Your task to perform on an android device: set default search engine in the chrome app Image 0: 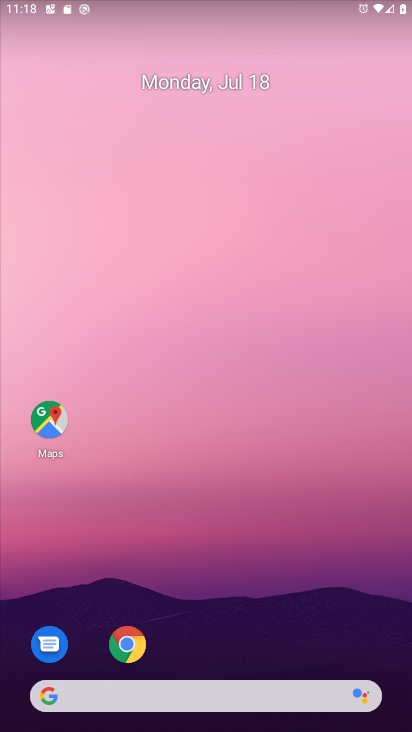
Step 0: click (118, 649)
Your task to perform on an android device: set default search engine in the chrome app Image 1: 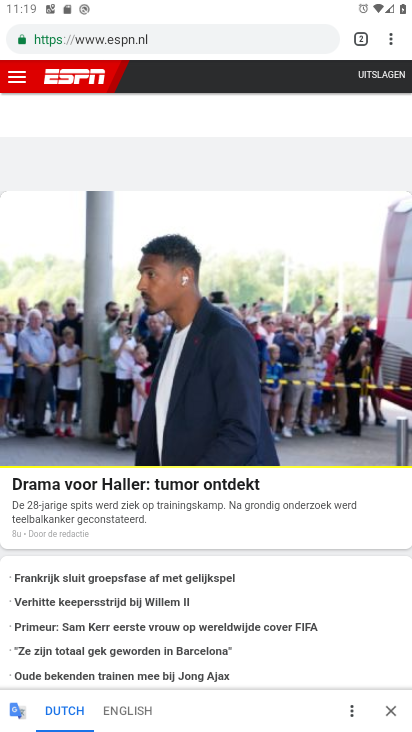
Step 1: task complete